Your task to perform on an android device: Go to battery settings Image 0: 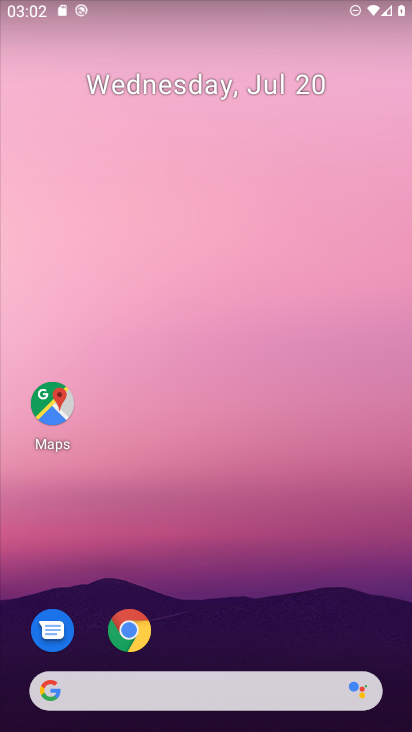
Step 0: drag from (336, 614) to (363, 103)
Your task to perform on an android device: Go to battery settings Image 1: 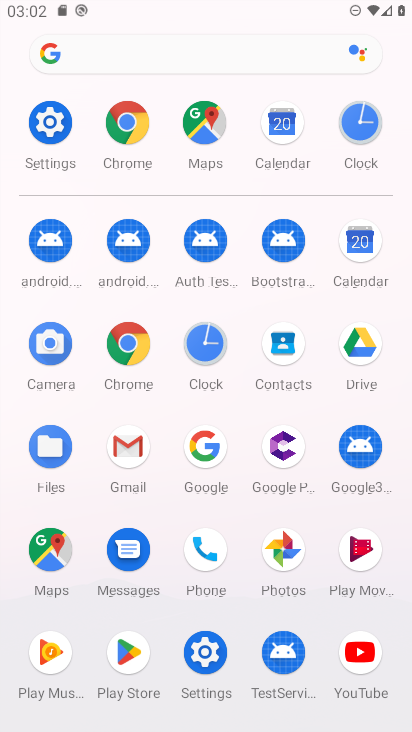
Step 1: click (46, 131)
Your task to perform on an android device: Go to battery settings Image 2: 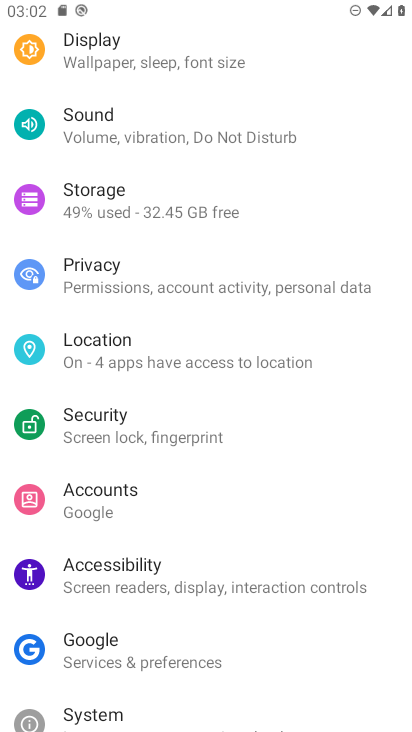
Step 2: drag from (330, 198) to (332, 271)
Your task to perform on an android device: Go to battery settings Image 3: 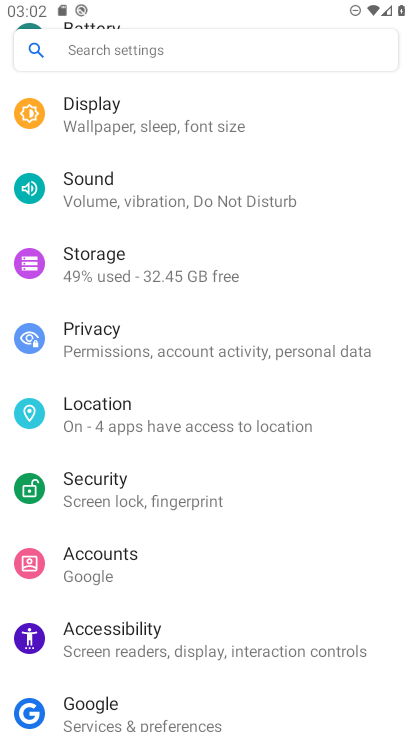
Step 3: drag from (358, 161) to (360, 259)
Your task to perform on an android device: Go to battery settings Image 4: 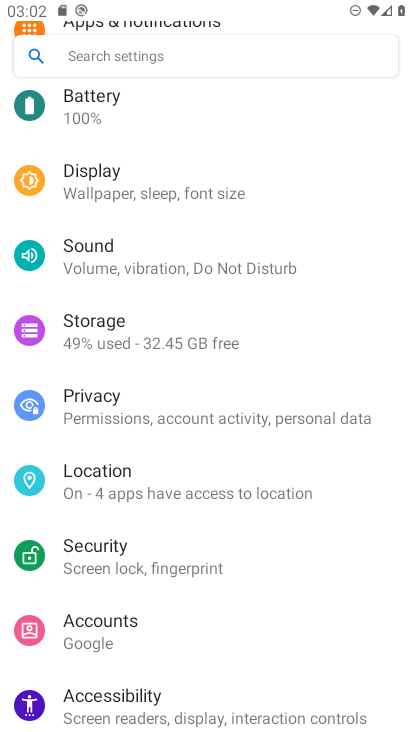
Step 4: drag from (369, 168) to (367, 280)
Your task to perform on an android device: Go to battery settings Image 5: 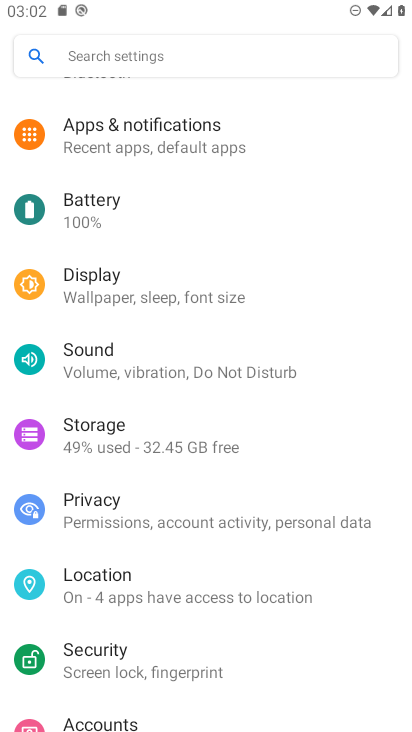
Step 5: drag from (355, 169) to (361, 307)
Your task to perform on an android device: Go to battery settings Image 6: 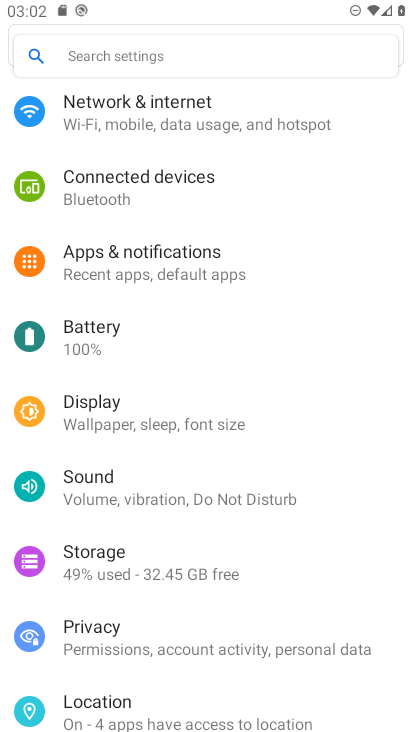
Step 6: drag from (333, 318) to (336, 266)
Your task to perform on an android device: Go to battery settings Image 7: 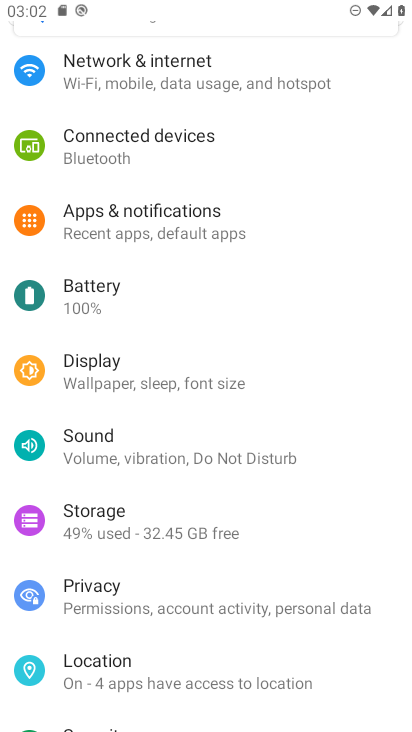
Step 7: drag from (325, 395) to (330, 295)
Your task to perform on an android device: Go to battery settings Image 8: 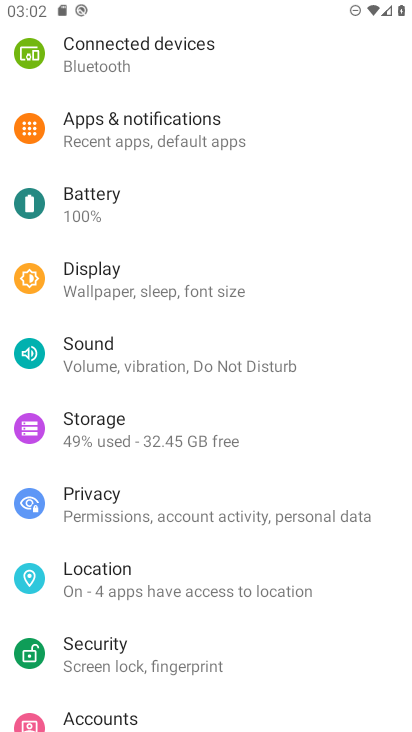
Step 8: drag from (340, 413) to (343, 322)
Your task to perform on an android device: Go to battery settings Image 9: 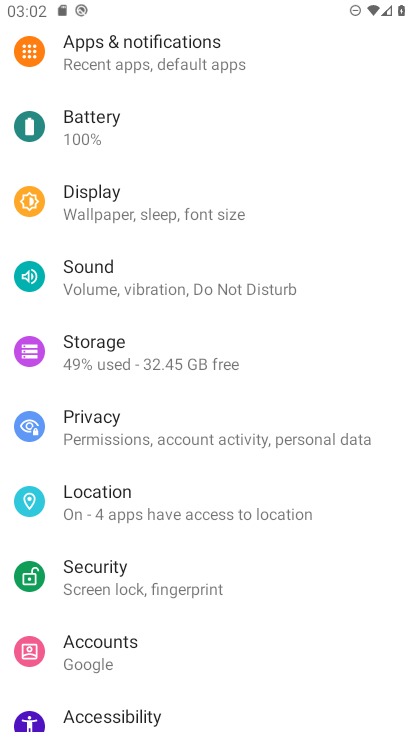
Step 9: drag from (342, 370) to (343, 309)
Your task to perform on an android device: Go to battery settings Image 10: 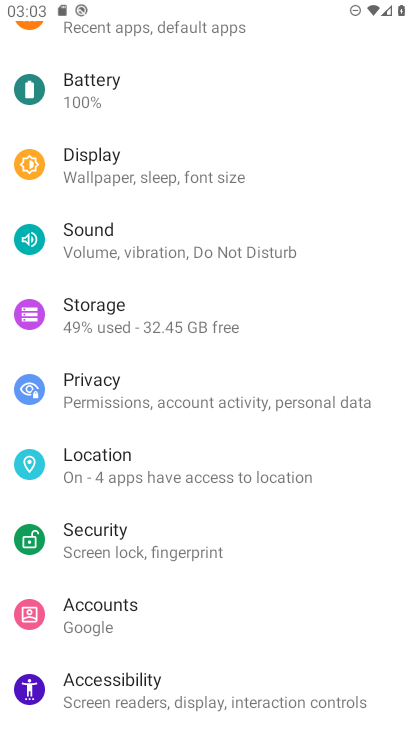
Step 10: click (183, 102)
Your task to perform on an android device: Go to battery settings Image 11: 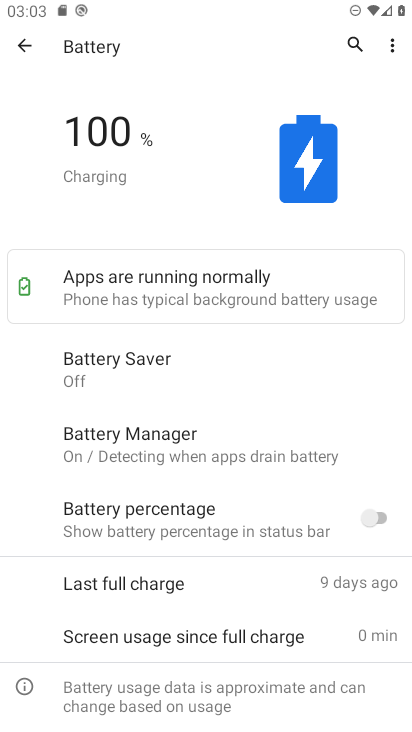
Step 11: task complete